Your task to perform on an android device: Open Google Maps and go to "Timeline" Image 0: 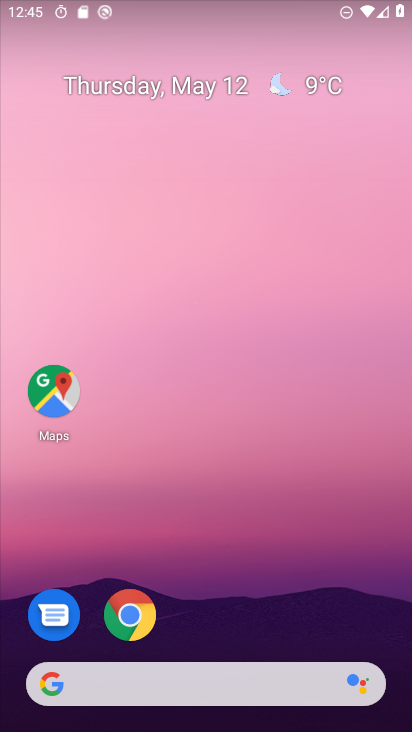
Step 0: drag from (230, 609) to (250, 58)
Your task to perform on an android device: Open Google Maps and go to "Timeline" Image 1: 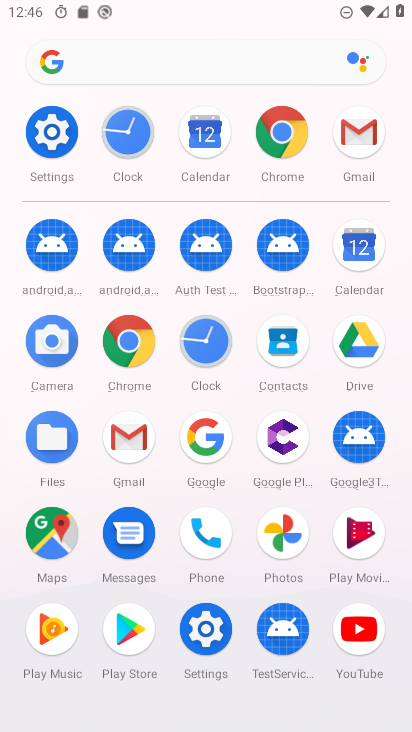
Step 1: click (44, 543)
Your task to perform on an android device: Open Google Maps and go to "Timeline" Image 2: 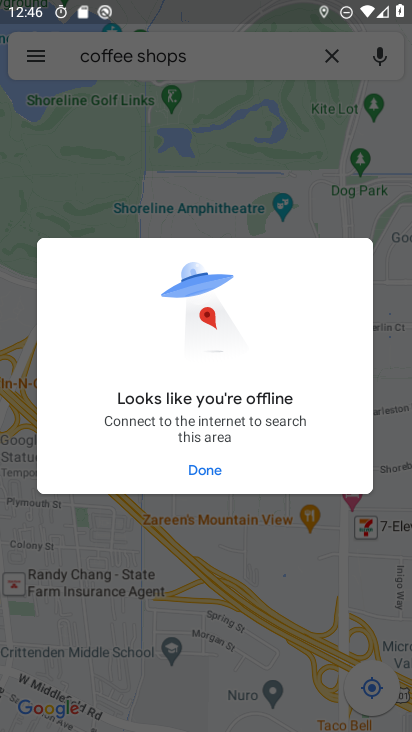
Step 2: click (239, 460)
Your task to perform on an android device: Open Google Maps and go to "Timeline" Image 3: 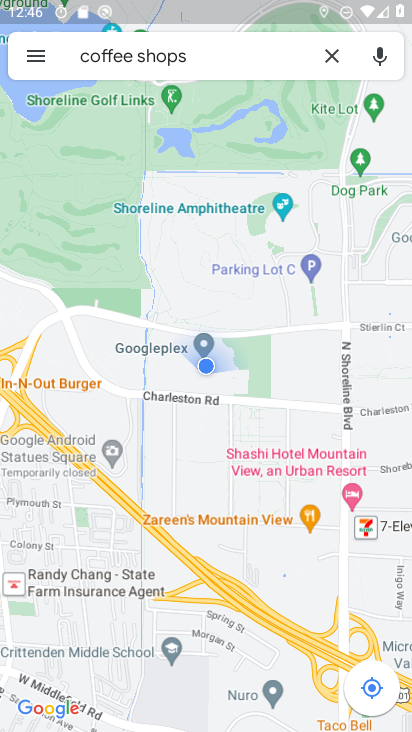
Step 3: click (44, 31)
Your task to perform on an android device: Open Google Maps and go to "Timeline" Image 4: 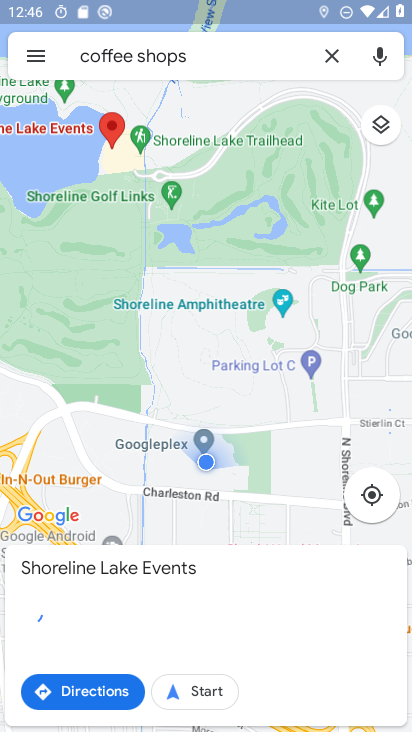
Step 4: click (37, 54)
Your task to perform on an android device: Open Google Maps and go to "Timeline" Image 5: 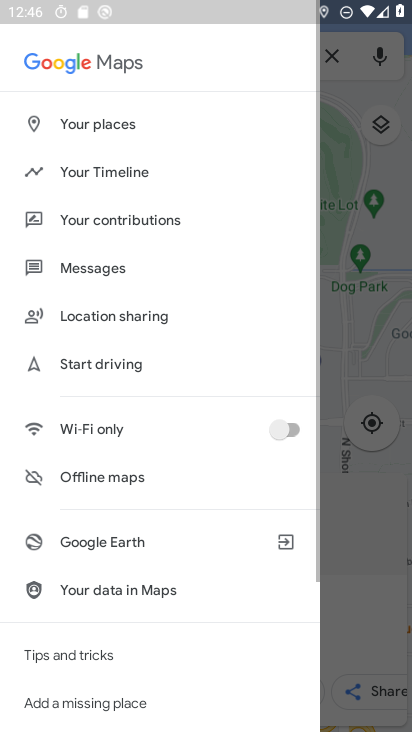
Step 5: click (39, 58)
Your task to perform on an android device: Open Google Maps and go to "Timeline" Image 6: 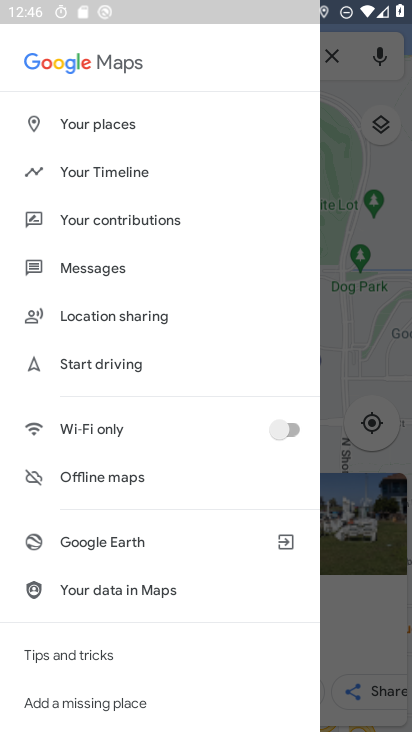
Step 6: click (104, 175)
Your task to perform on an android device: Open Google Maps and go to "Timeline" Image 7: 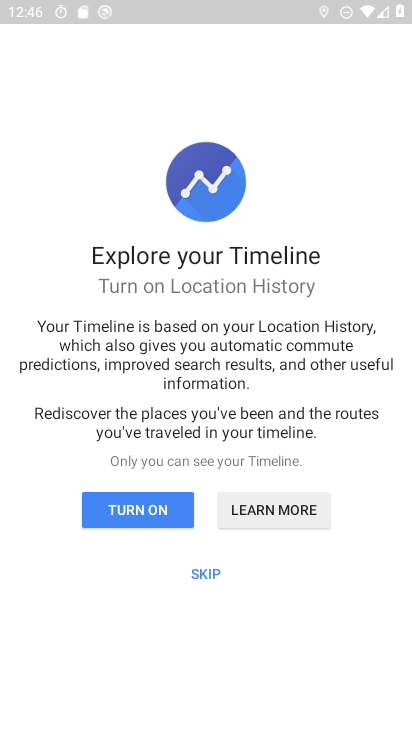
Step 7: click (134, 502)
Your task to perform on an android device: Open Google Maps and go to "Timeline" Image 8: 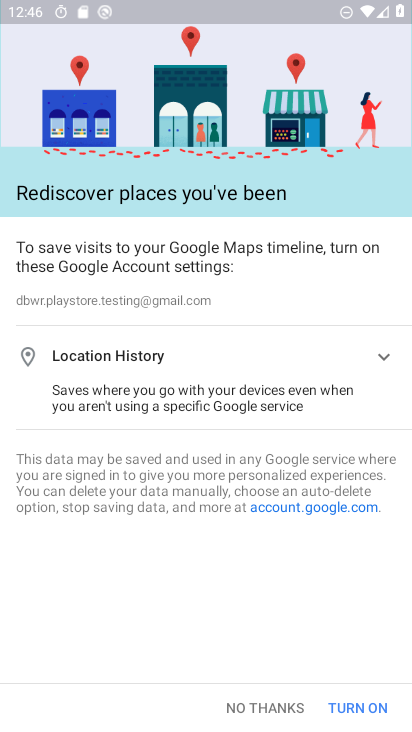
Step 8: click (263, 712)
Your task to perform on an android device: Open Google Maps and go to "Timeline" Image 9: 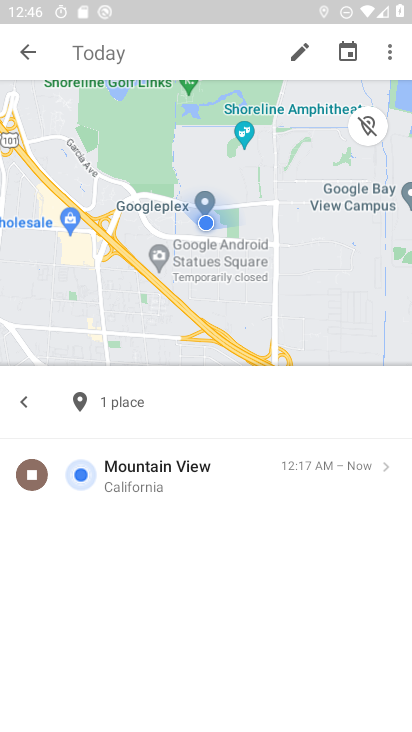
Step 9: task complete